Your task to perform on an android device: Search for vegetarian restaurants on Maps Image 0: 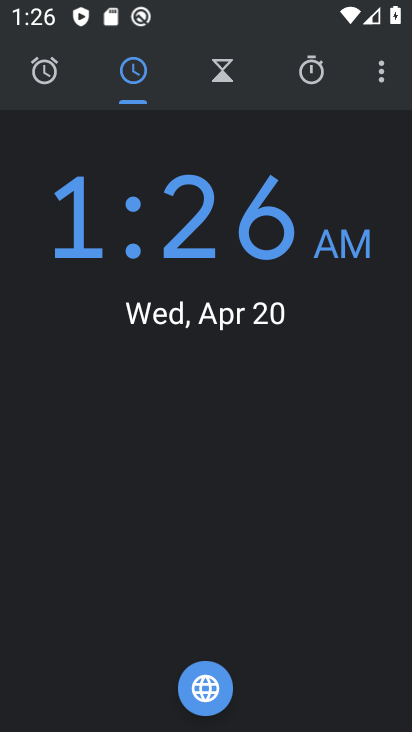
Step 0: press home button
Your task to perform on an android device: Search for vegetarian restaurants on Maps Image 1: 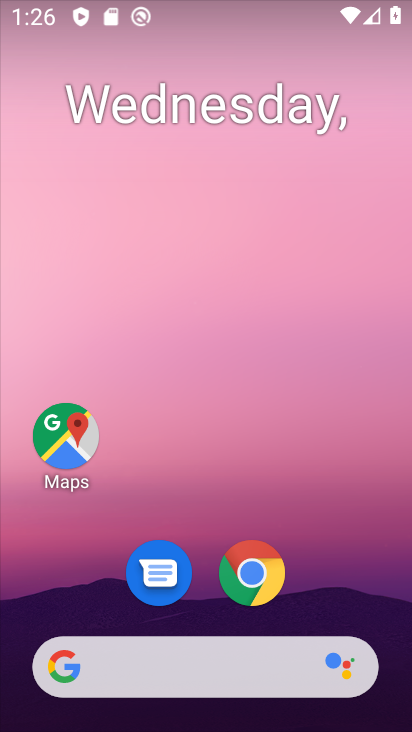
Step 1: click (72, 435)
Your task to perform on an android device: Search for vegetarian restaurants on Maps Image 2: 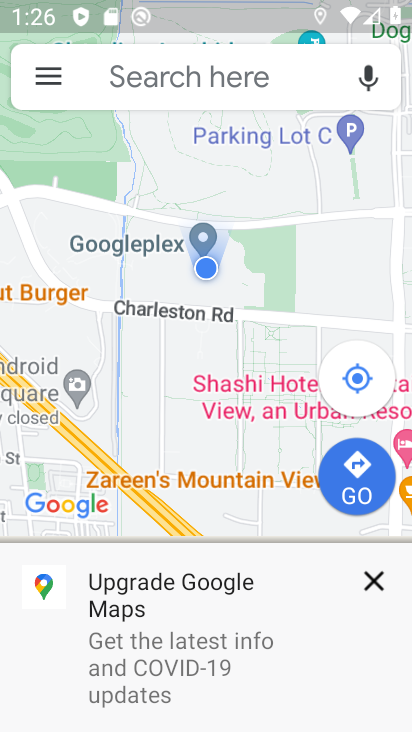
Step 2: click (180, 82)
Your task to perform on an android device: Search for vegetarian restaurants on Maps Image 3: 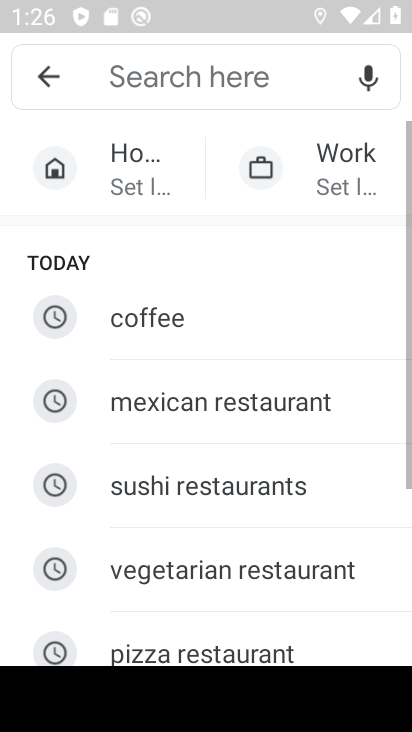
Step 3: click (175, 577)
Your task to perform on an android device: Search for vegetarian restaurants on Maps Image 4: 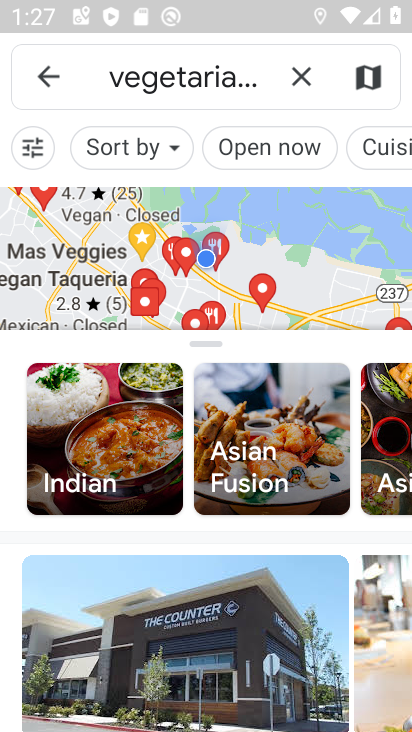
Step 4: task complete